Your task to perform on an android device: Open Amazon Image 0: 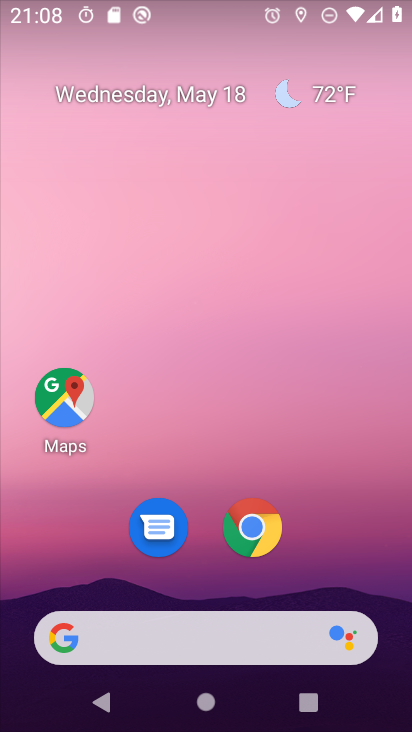
Step 0: click (262, 522)
Your task to perform on an android device: Open Amazon Image 1: 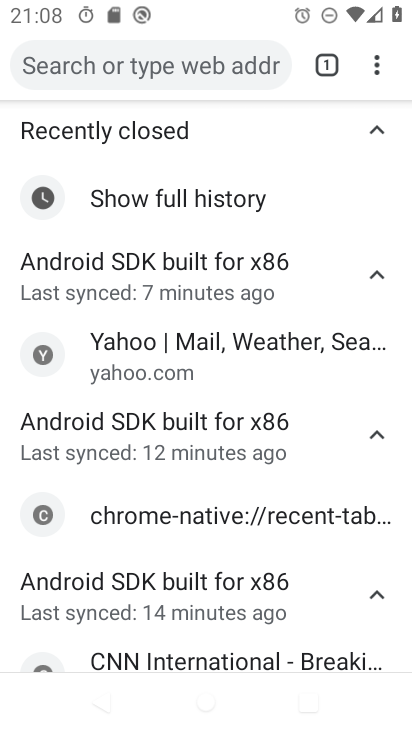
Step 1: click (271, 69)
Your task to perform on an android device: Open Amazon Image 2: 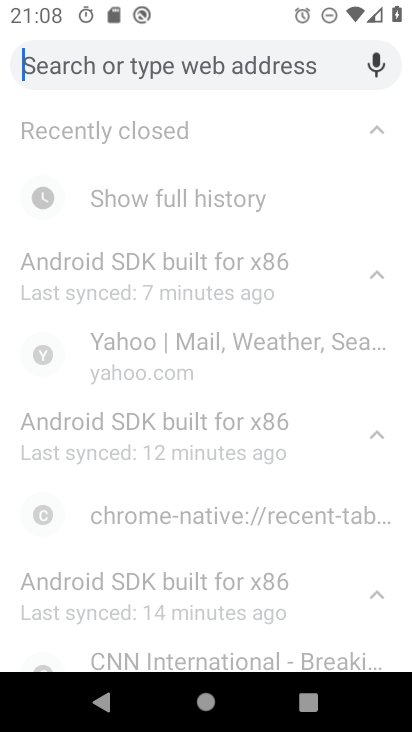
Step 2: type "Amazon"
Your task to perform on an android device: Open Amazon Image 3: 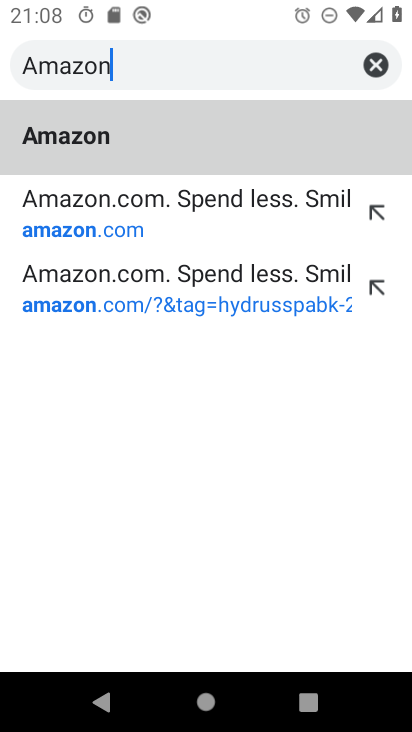
Step 3: click (88, 137)
Your task to perform on an android device: Open Amazon Image 4: 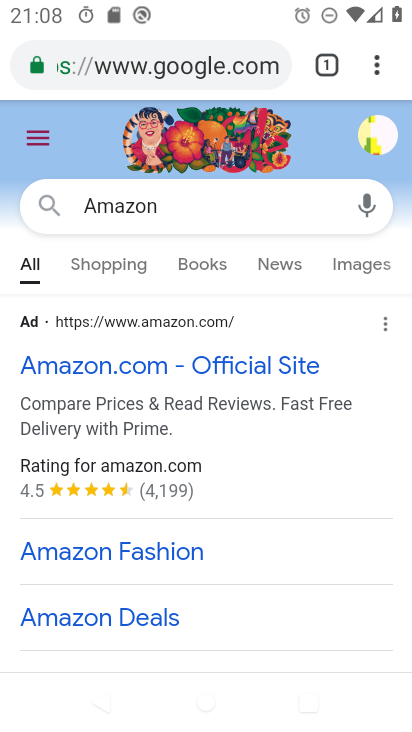
Step 4: task complete